Your task to perform on an android device: Open Youtube and go to the subscriptions tab Image 0: 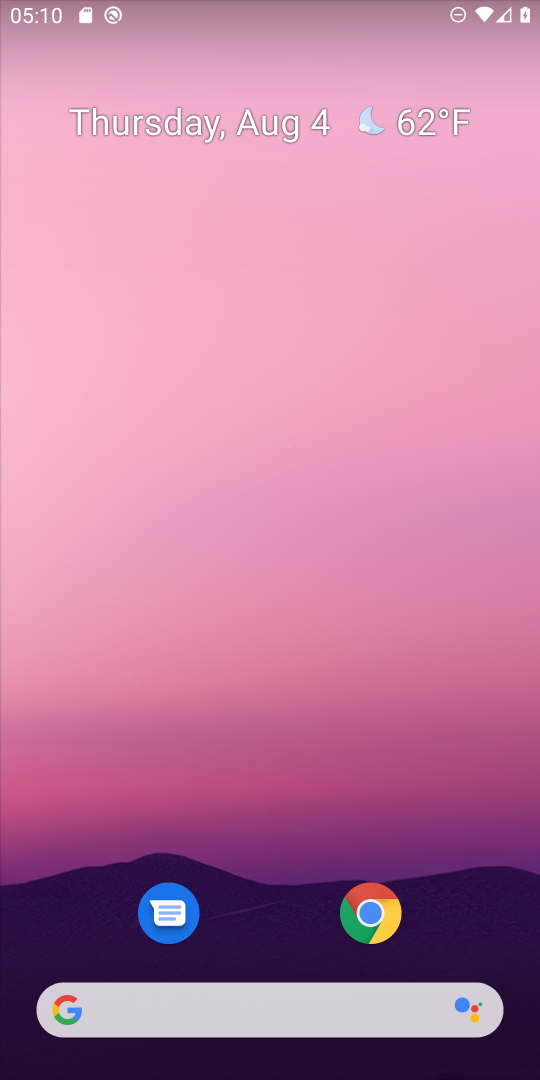
Step 0: drag from (385, 997) to (302, 8)
Your task to perform on an android device: Open Youtube and go to the subscriptions tab Image 1: 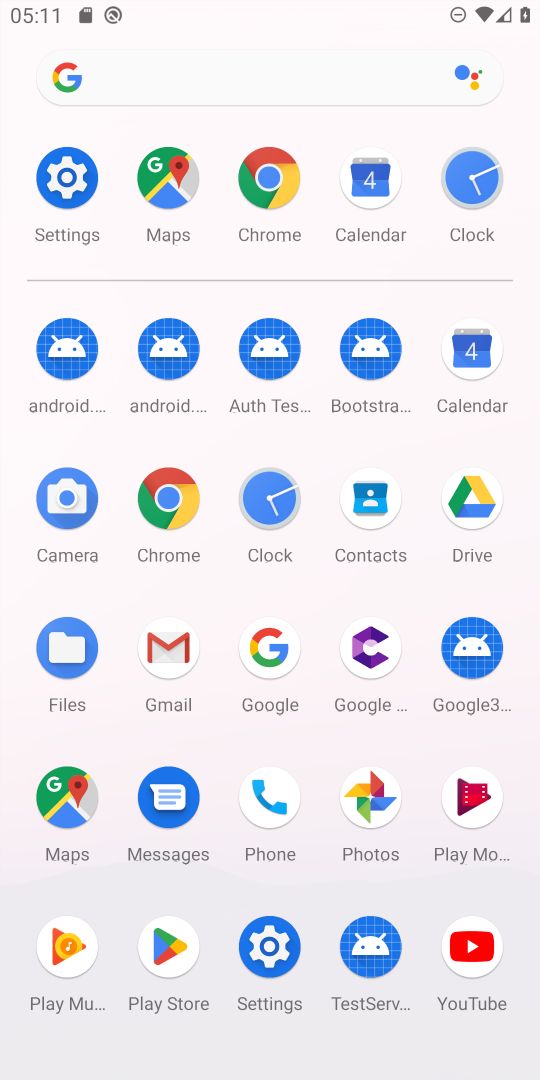
Step 1: click (471, 935)
Your task to perform on an android device: Open Youtube and go to the subscriptions tab Image 2: 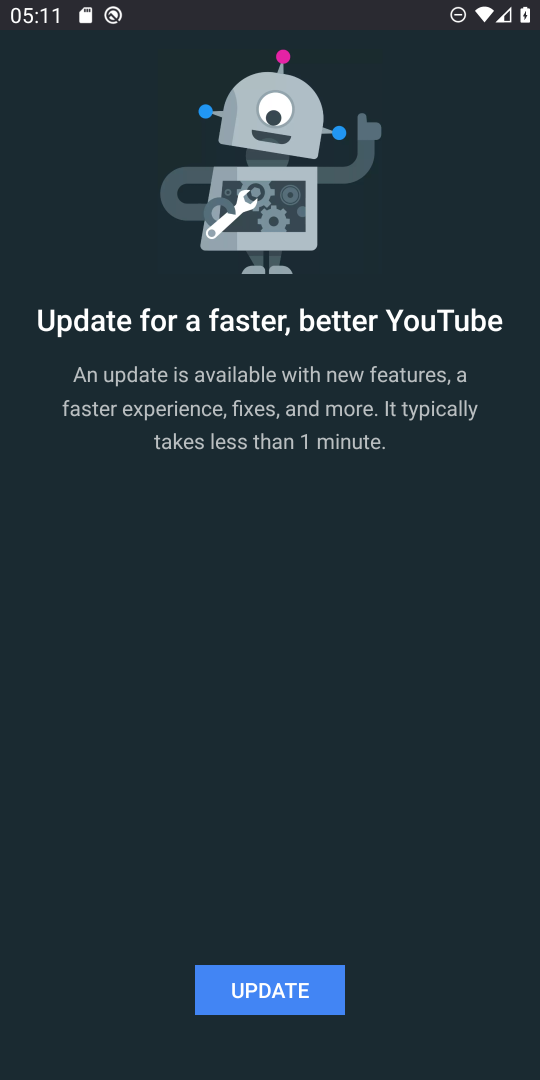
Step 2: click (287, 979)
Your task to perform on an android device: Open Youtube and go to the subscriptions tab Image 3: 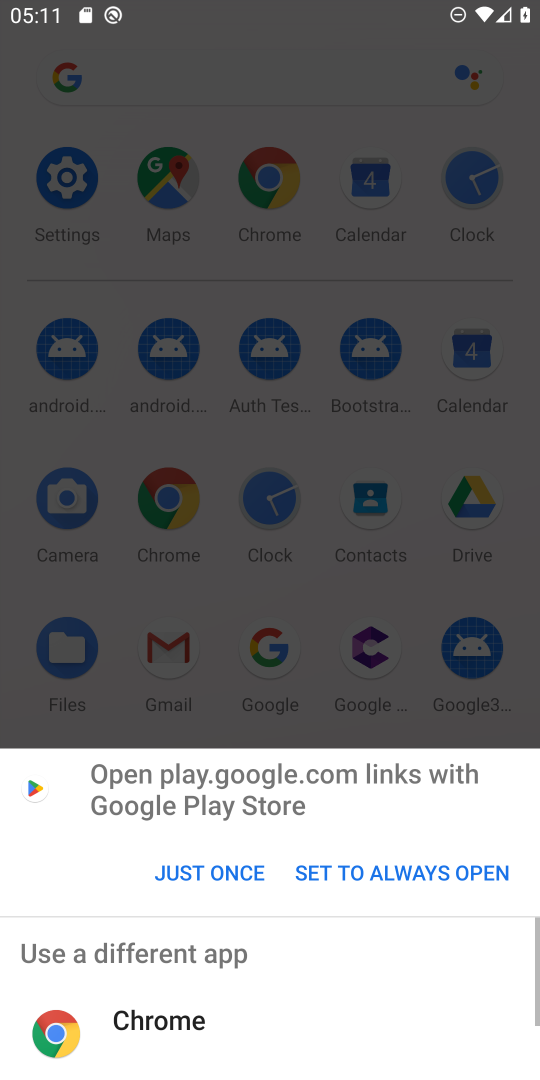
Step 3: click (239, 875)
Your task to perform on an android device: Open Youtube and go to the subscriptions tab Image 4: 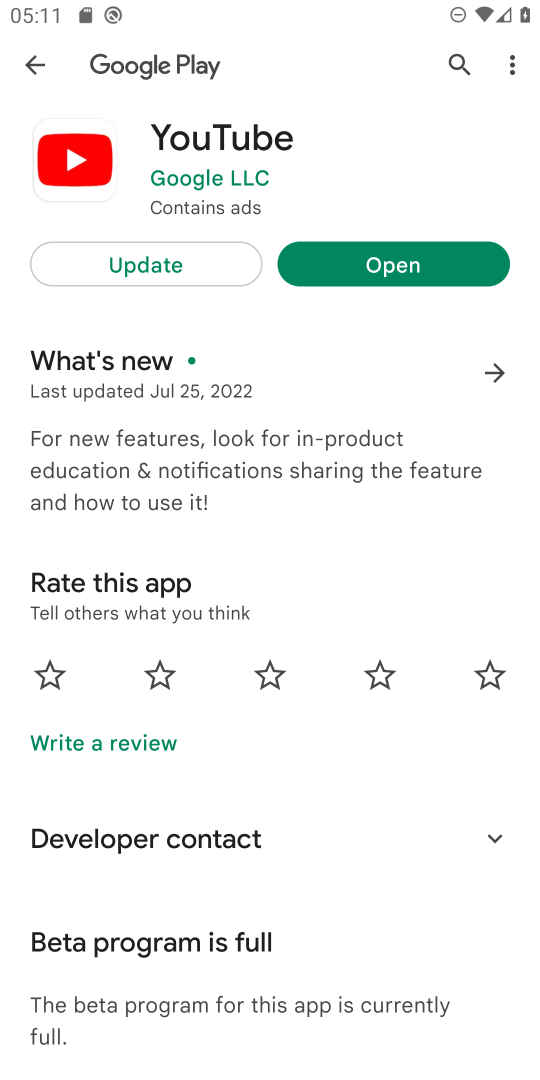
Step 4: click (189, 276)
Your task to perform on an android device: Open Youtube and go to the subscriptions tab Image 5: 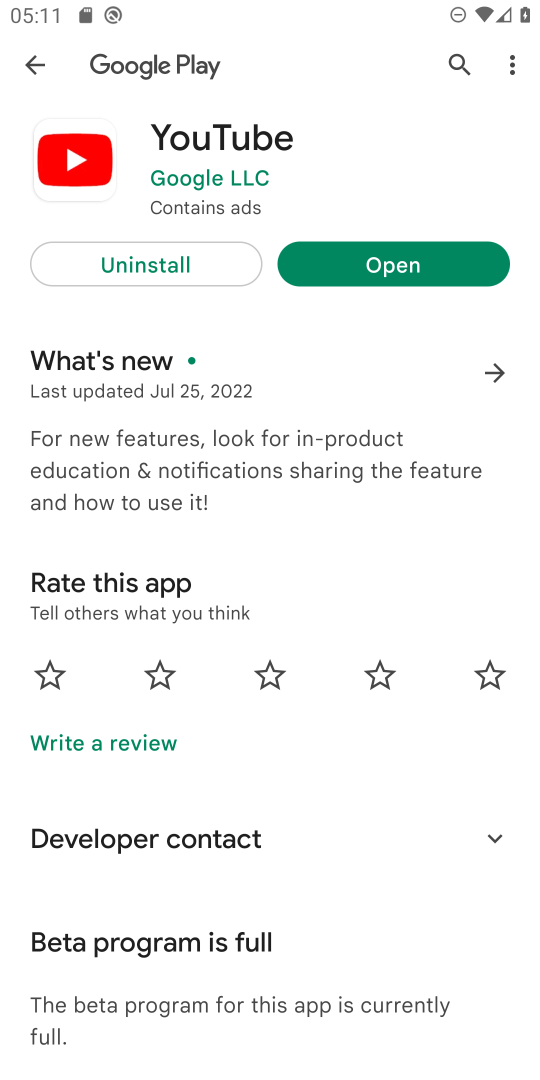
Step 5: click (336, 260)
Your task to perform on an android device: Open Youtube and go to the subscriptions tab Image 6: 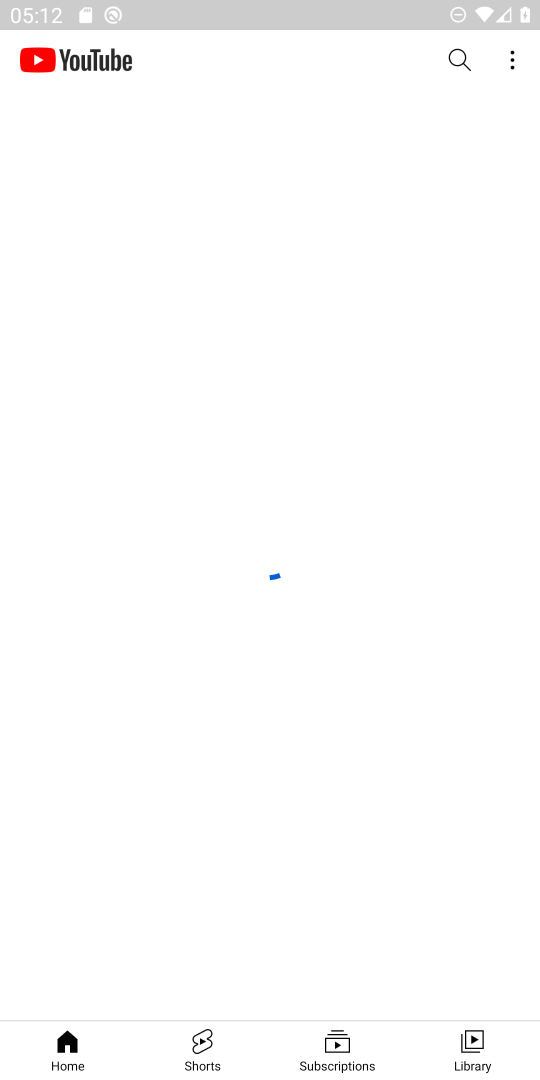
Step 6: click (324, 1048)
Your task to perform on an android device: Open Youtube and go to the subscriptions tab Image 7: 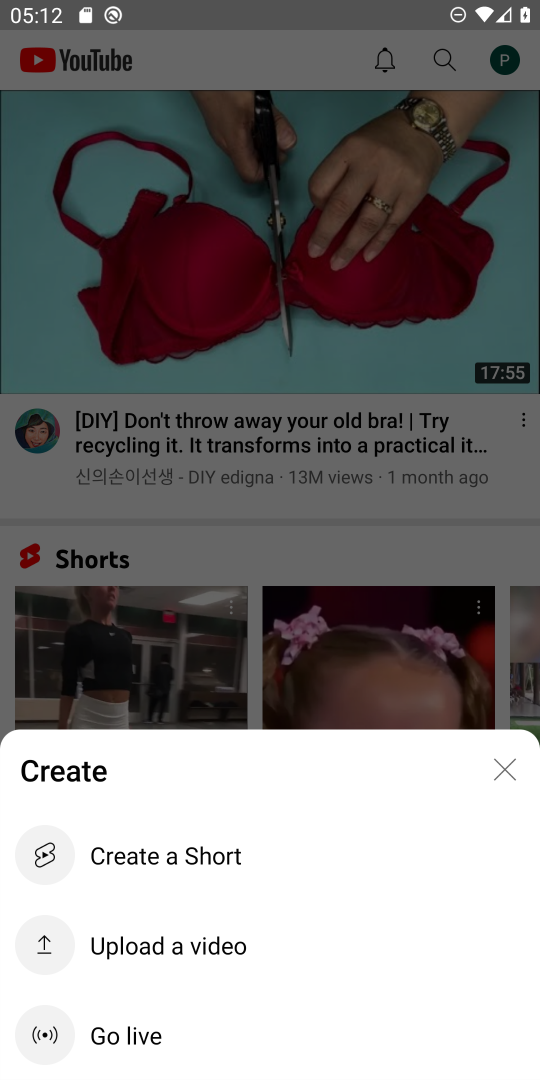
Step 7: click (348, 704)
Your task to perform on an android device: Open Youtube and go to the subscriptions tab Image 8: 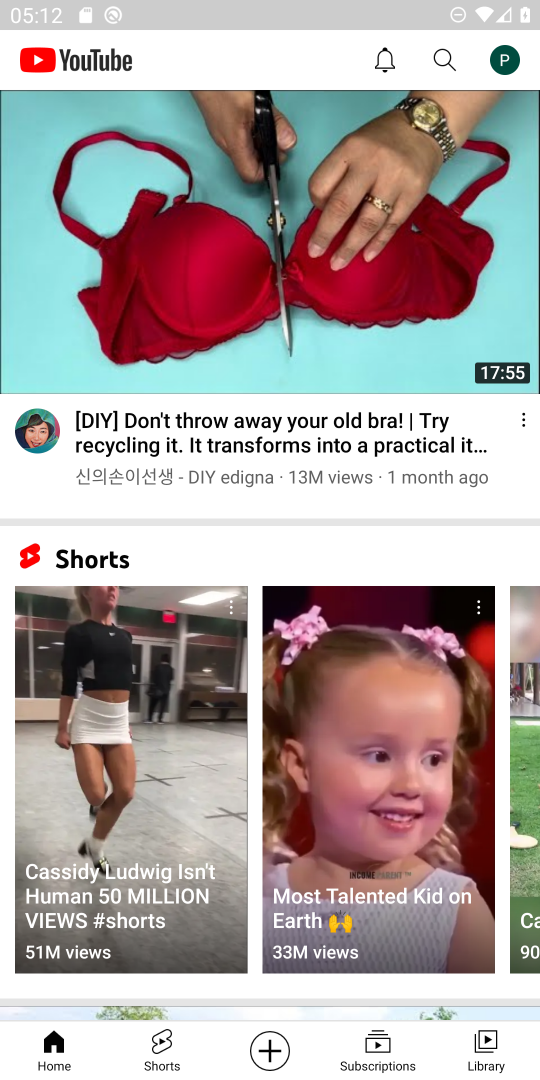
Step 8: click (385, 1038)
Your task to perform on an android device: Open Youtube and go to the subscriptions tab Image 9: 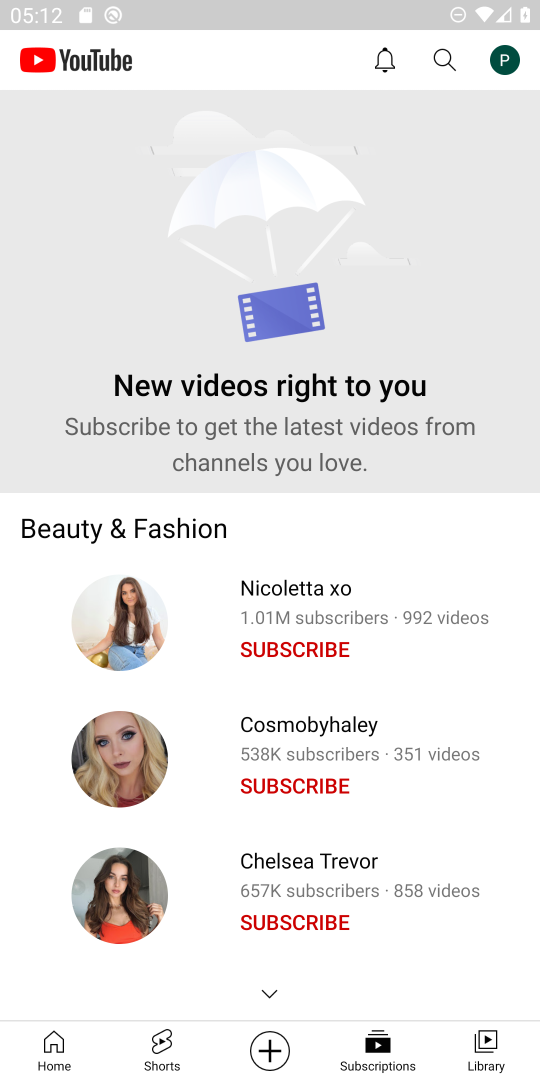
Step 9: task complete